Your task to perform on an android device: View the shopping cart on bestbuy.com. Image 0: 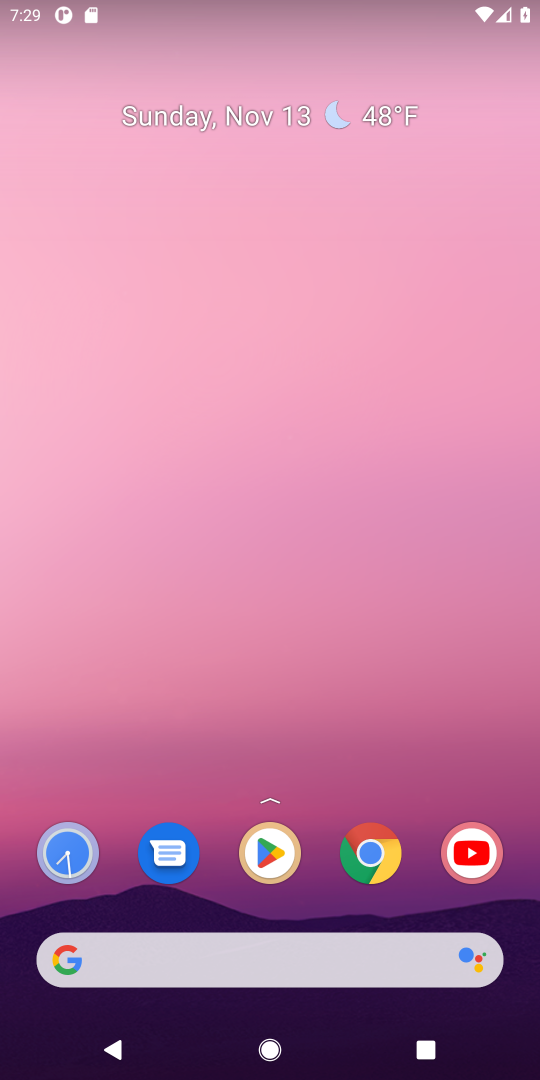
Step 0: press home button
Your task to perform on an android device: View the shopping cart on bestbuy.com. Image 1: 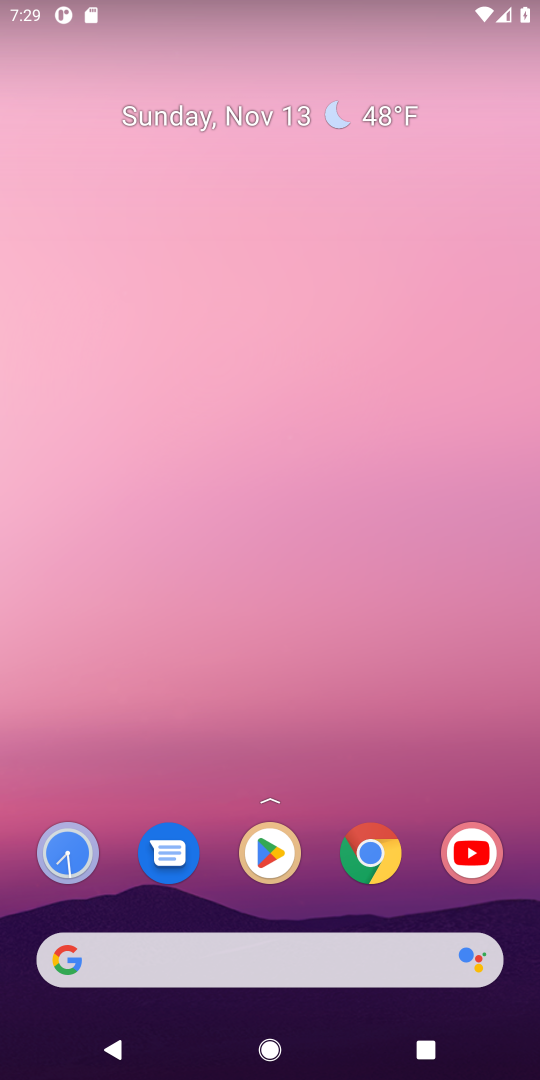
Step 1: click (113, 954)
Your task to perform on an android device: View the shopping cart on bestbuy.com. Image 2: 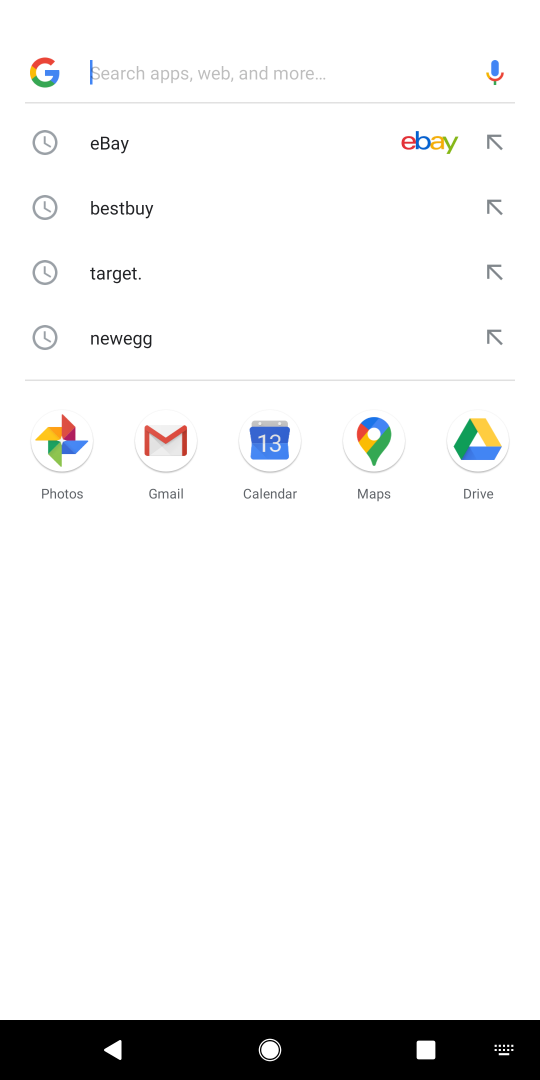
Step 2: type "bestbuy.com"
Your task to perform on an android device: View the shopping cart on bestbuy.com. Image 3: 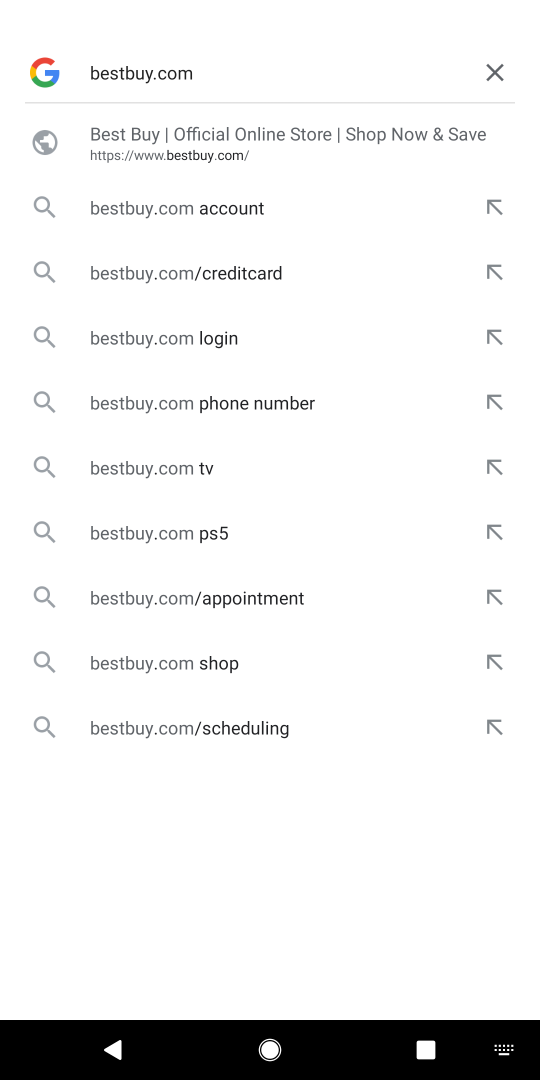
Step 3: press enter
Your task to perform on an android device: View the shopping cart on bestbuy.com. Image 4: 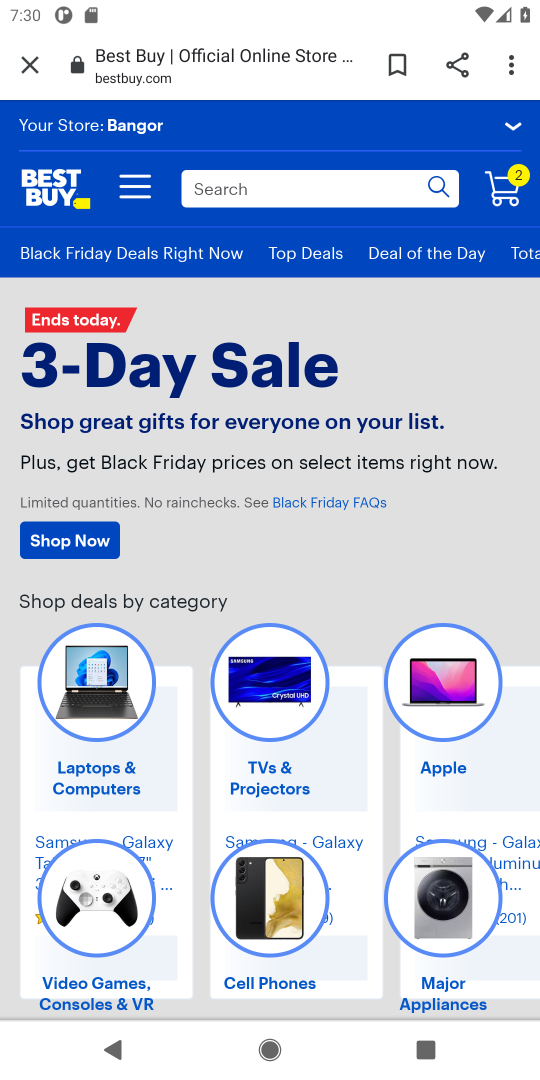
Step 4: click (508, 190)
Your task to perform on an android device: View the shopping cart on bestbuy.com. Image 5: 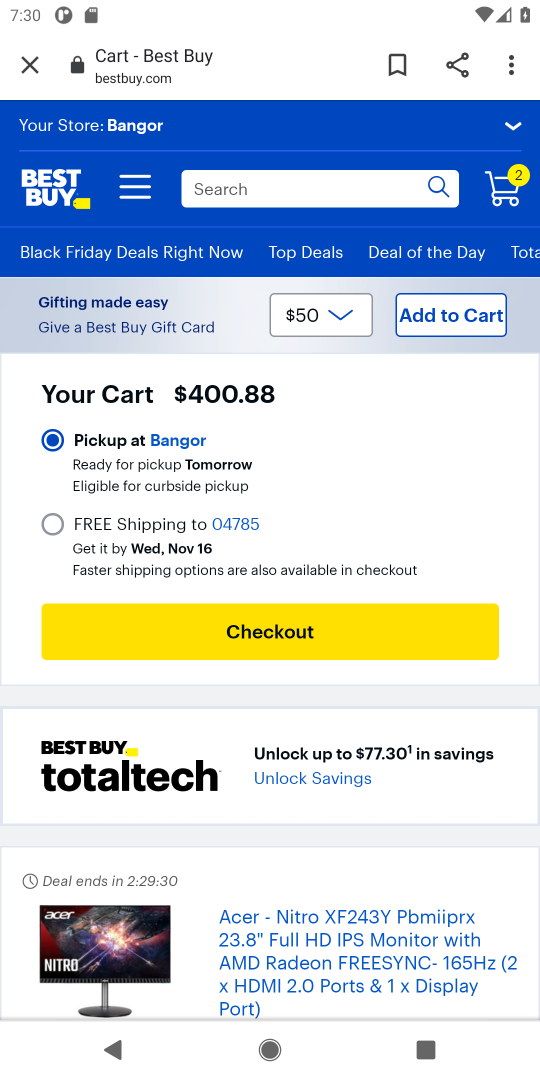
Step 5: task complete